Your task to perform on an android device: What's the weather going to be tomorrow? Image 0: 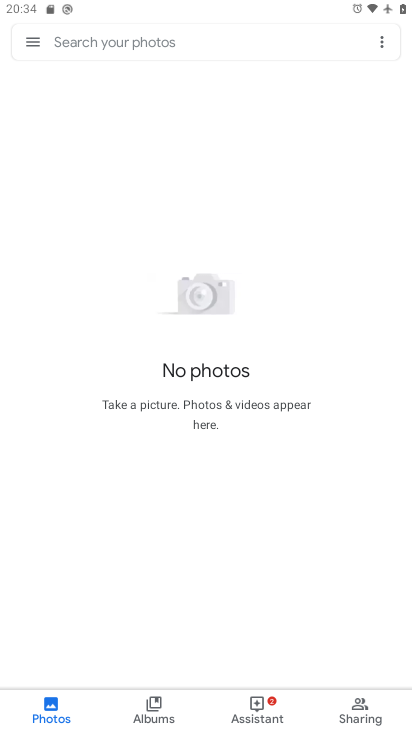
Step 0: press home button
Your task to perform on an android device: What's the weather going to be tomorrow? Image 1: 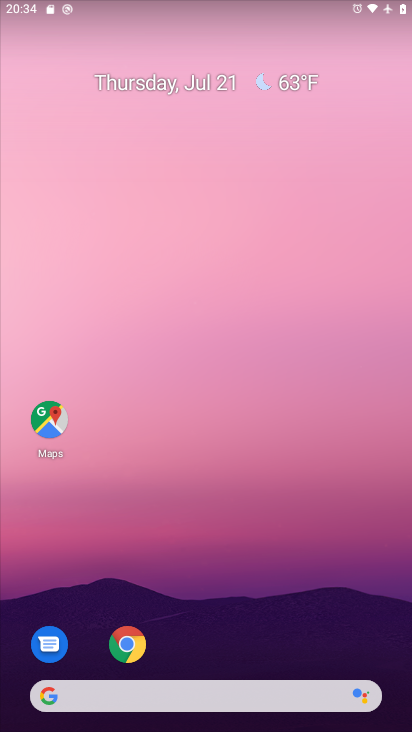
Step 1: click (132, 639)
Your task to perform on an android device: What's the weather going to be tomorrow? Image 2: 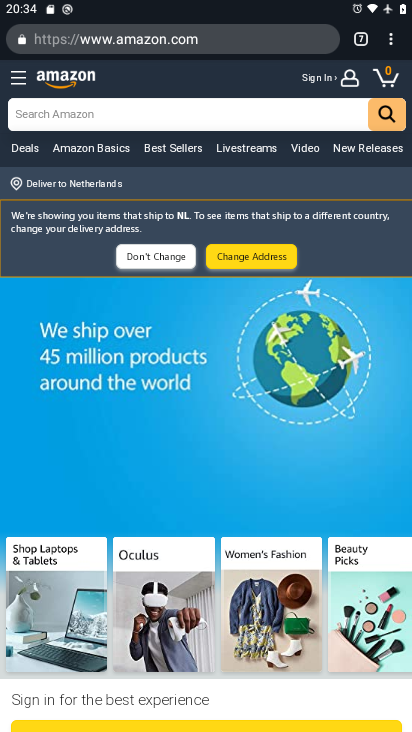
Step 2: click (396, 42)
Your task to perform on an android device: What's the weather going to be tomorrow? Image 3: 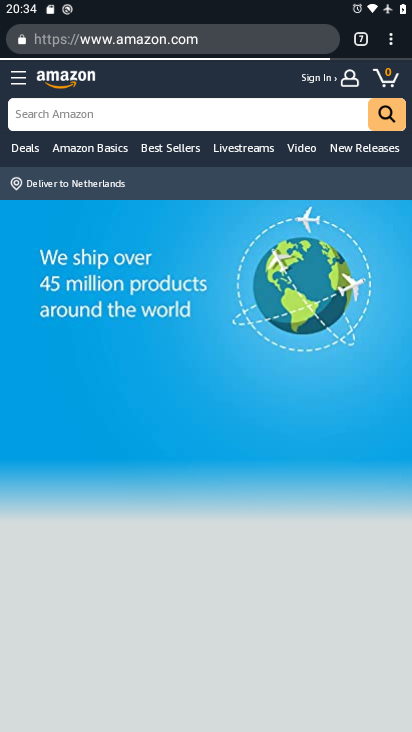
Step 3: click (396, 42)
Your task to perform on an android device: What's the weather going to be tomorrow? Image 4: 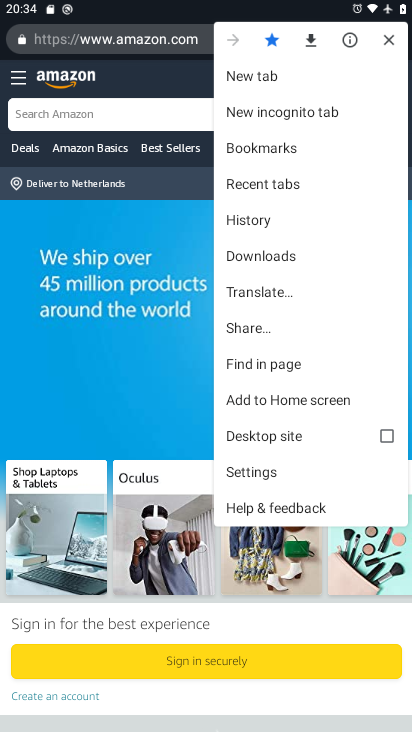
Step 4: click (242, 71)
Your task to perform on an android device: What's the weather going to be tomorrow? Image 5: 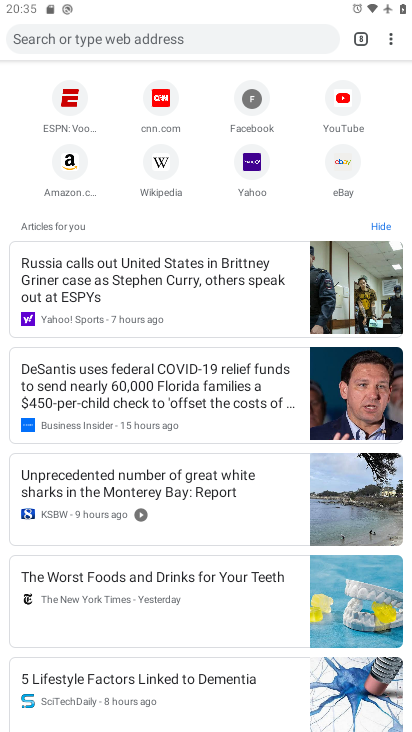
Step 5: click (223, 33)
Your task to perform on an android device: What's the weather going to be tomorrow? Image 6: 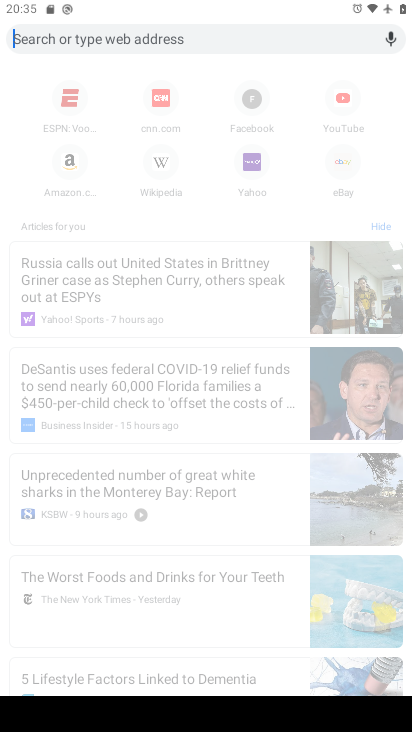
Step 6: type "What's the weather going to be tomorrow  "
Your task to perform on an android device: What's the weather going to be tomorrow? Image 7: 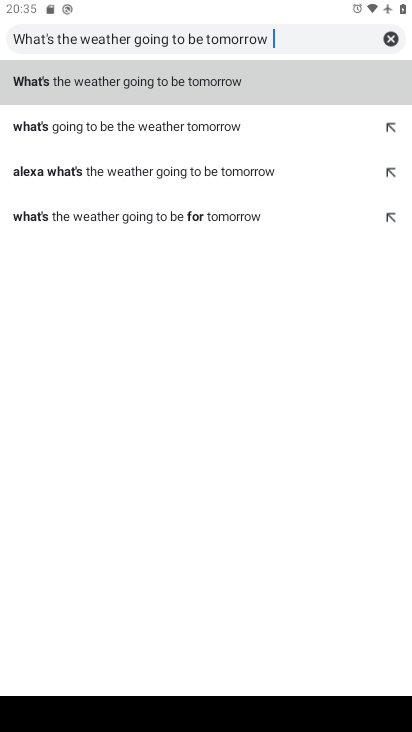
Step 7: click (196, 85)
Your task to perform on an android device: What's the weather going to be tomorrow? Image 8: 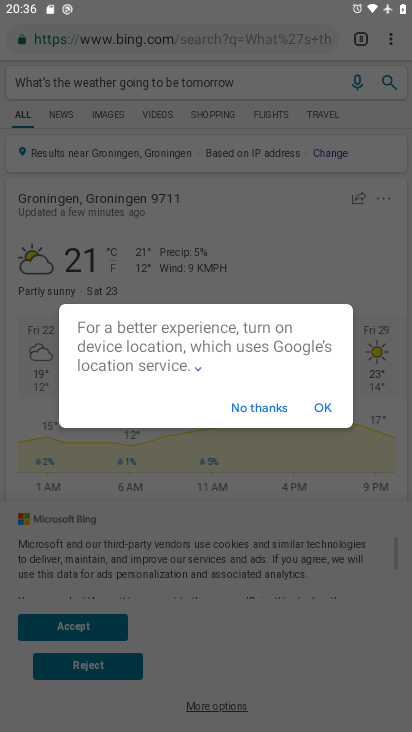
Step 8: click (325, 408)
Your task to perform on an android device: What's the weather going to be tomorrow? Image 9: 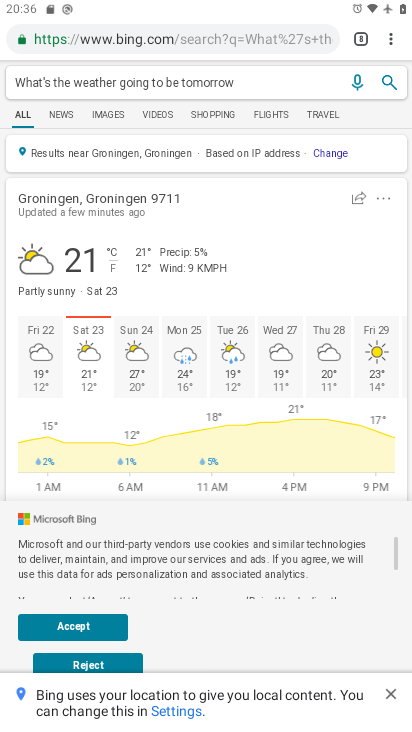
Step 9: task complete